Your task to perform on an android device: toggle improve location accuracy Image 0: 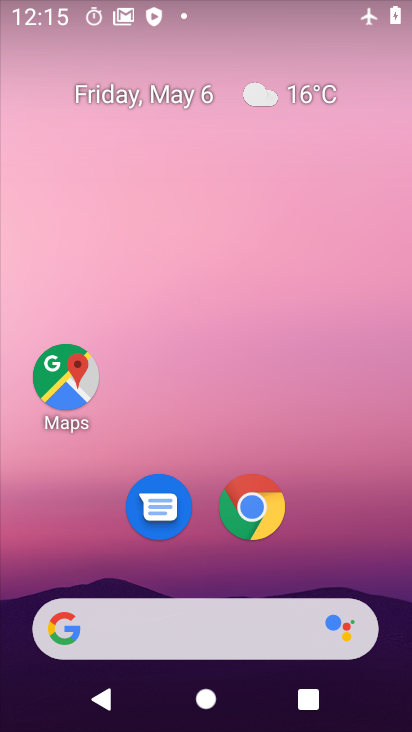
Step 0: drag from (223, 724) to (217, 203)
Your task to perform on an android device: toggle improve location accuracy Image 1: 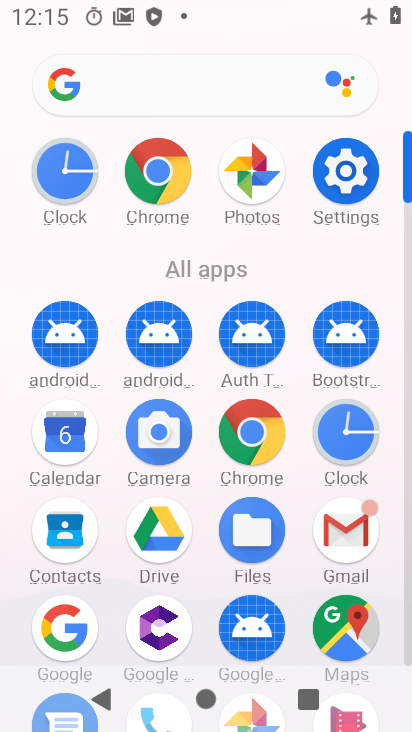
Step 1: click (340, 165)
Your task to perform on an android device: toggle improve location accuracy Image 2: 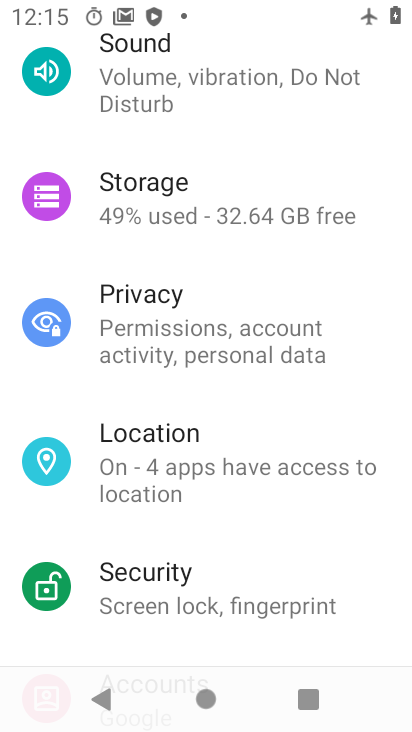
Step 2: drag from (176, 644) to (176, 279)
Your task to perform on an android device: toggle improve location accuracy Image 3: 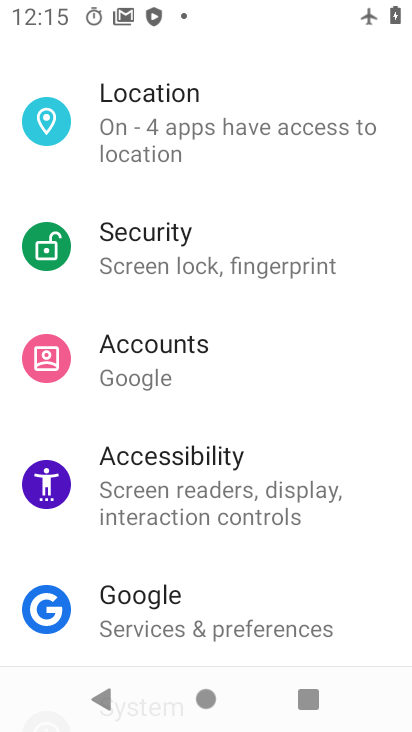
Step 3: click (144, 126)
Your task to perform on an android device: toggle improve location accuracy Image 4: 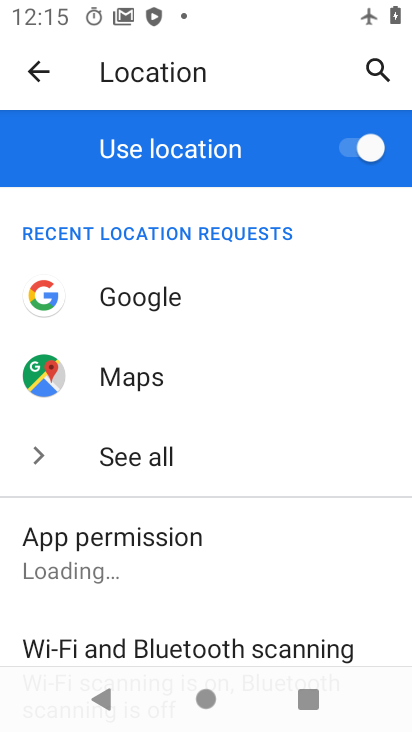
Step 4: drag from (168, 615) to (166, 295)
Your task to perform on an android device: toggle improve location accuracy Image 5: 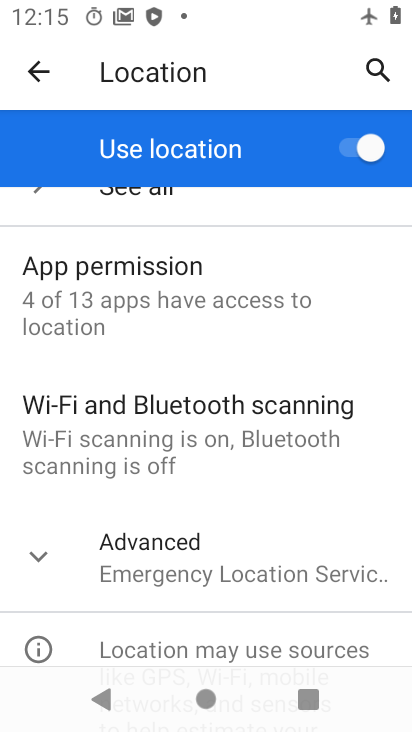
Step 5: click (159, 545)
Your task to perform on an android device: toggle improve location accuracy Image 6: 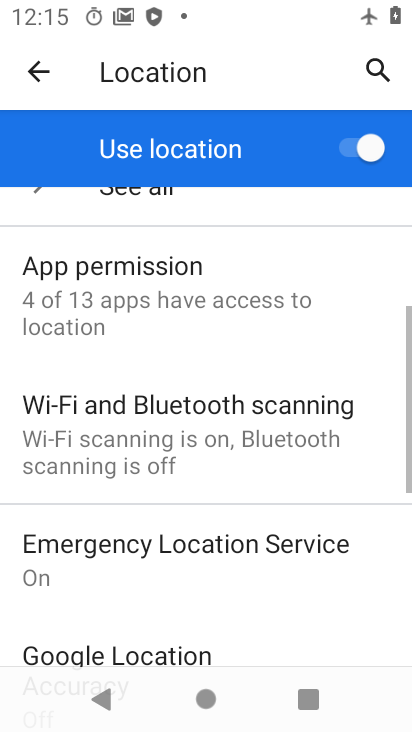
Step 6: drag from (187, 621) to (189, 289)
Your task to perform on an android device: toggle improve location accuracy Image 7: 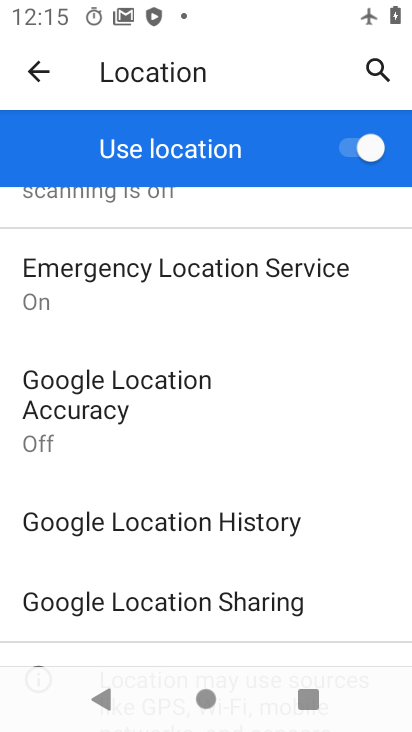
Step 7: click (91, 386)
Your task to perform on an android device: toggle improve location accuracy Image 8: 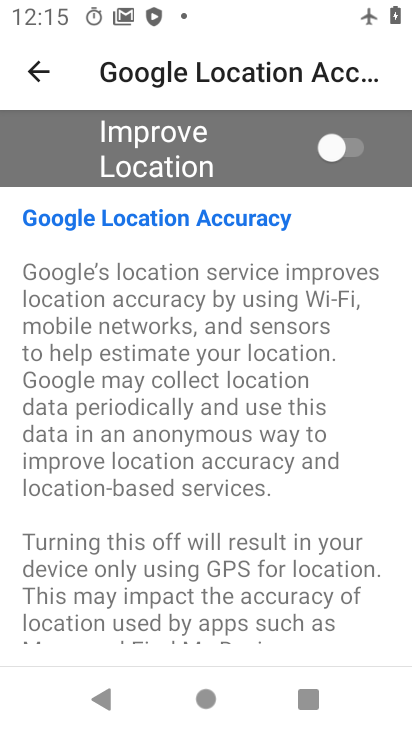
Step 8: click (348, 146)
Your task to perform on an android device: toggle improve location accuracy Image 9: 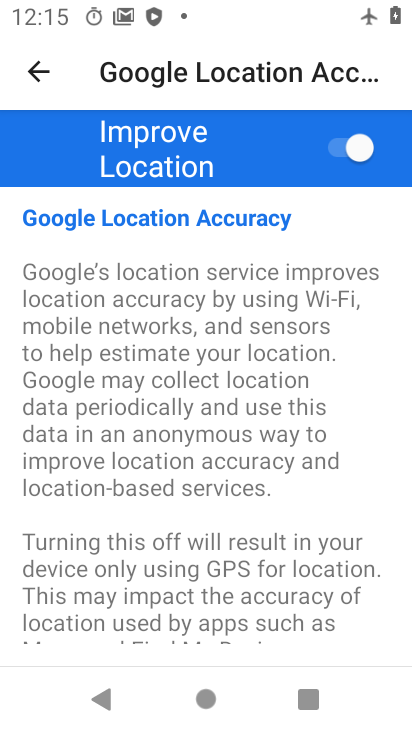
Step 9: task complete